Your task to perform on an android device: find snoozed emails in the gmail app Image 0: 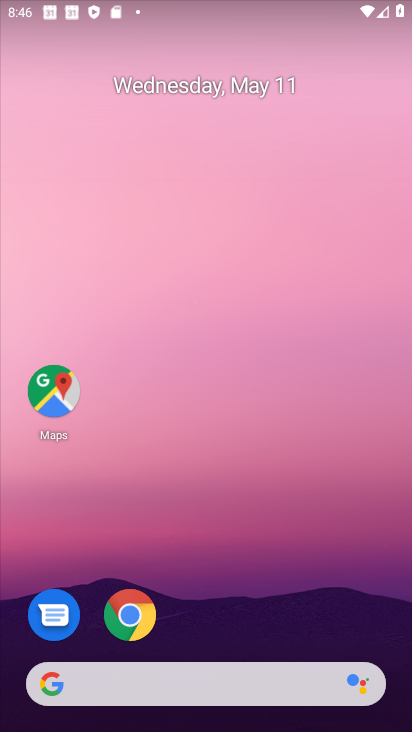
Step 0: press home button
Your task to perform on an android device: find snoozed emails in the gmail app Image 1: 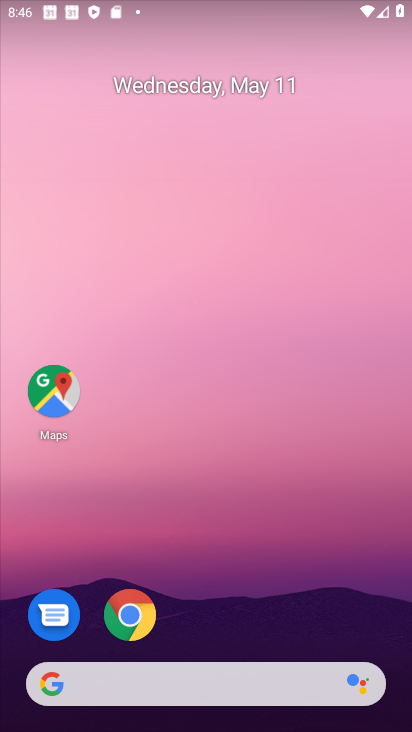
Step 1: drag from (62, 568) to (184, 242)
Your task to perform on an android device: find snoozed emails in the gmail app Image 2: 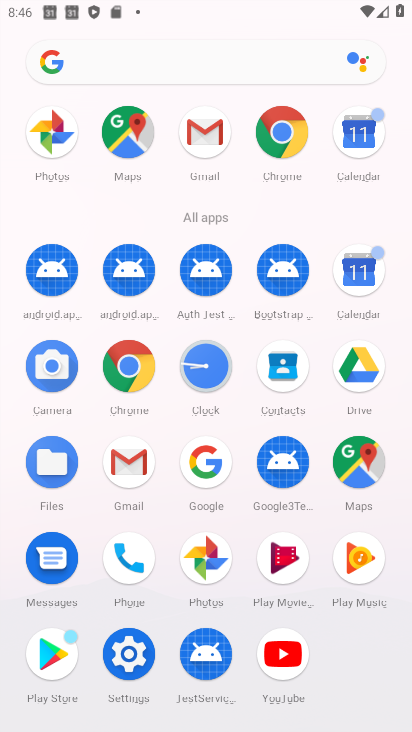
Step 2: click (131, 472)
Your task to perform on an android device: find snoozed emails in the gmail app Image 3: 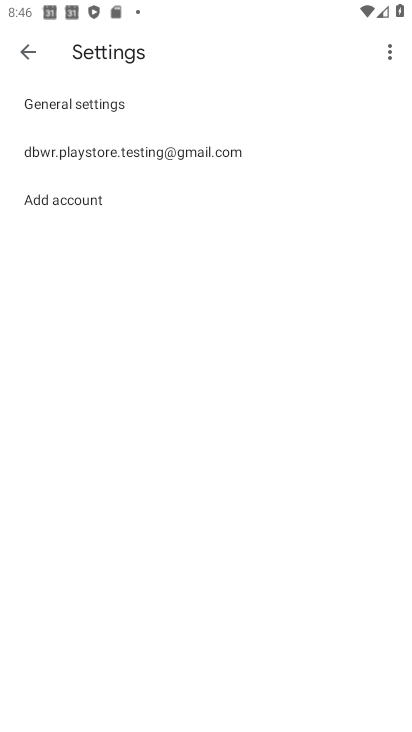
Step 3: click (131, 149)
Your task to perform on an android device: find snoozed emails in the gmail app Image 4: 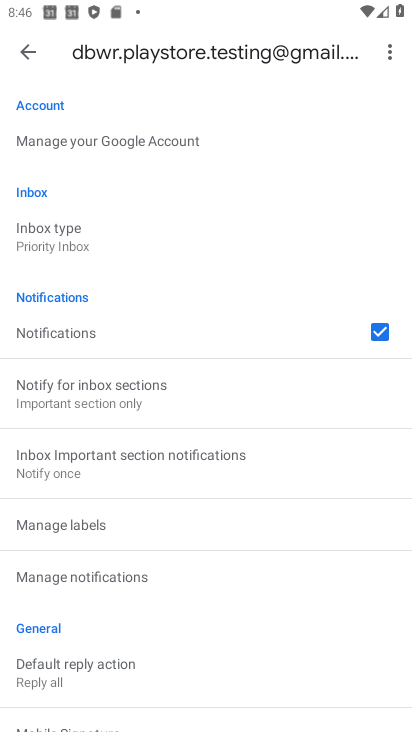
Step 4: press back button
Your task to perform on an android device: find snoozed emails in the gmail app Image 5: 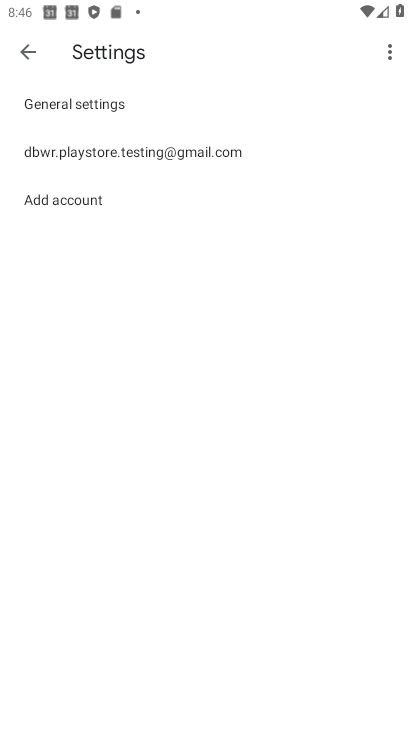
Step 5: press back button
Your task to perform on an android device: find snoozed emails in the gmail app Image 6: 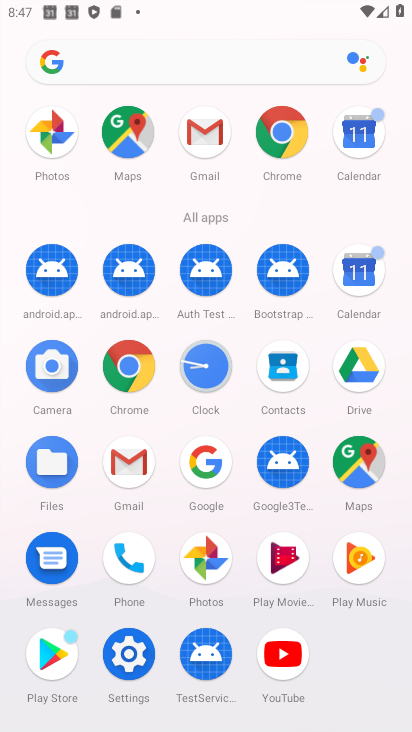
Step 6: click (139, 465)
Your task to perform on an android device: find snoozed emails in the gmail app Image 7: 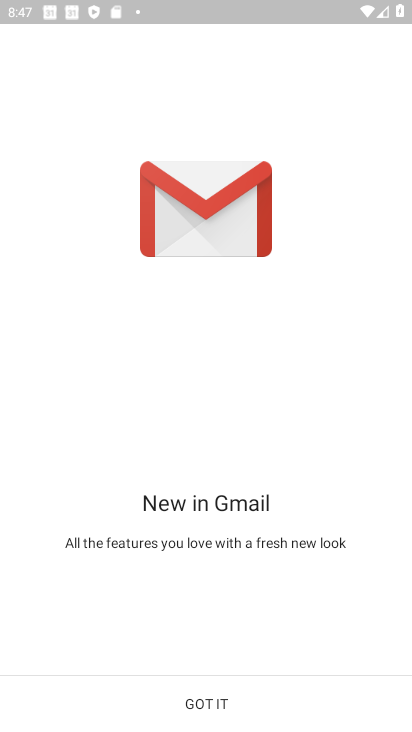
Step 7: click (153, 686)
Your task to perform on an android device: find snoozed emails in the gmail app Image 8: 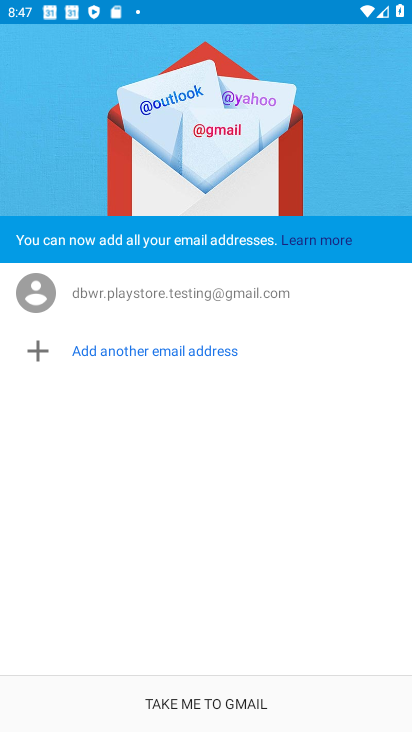
Step 8: click (227, 700)
Your task to perform on an android device: find snoozed emails in the gmail app Image 9: 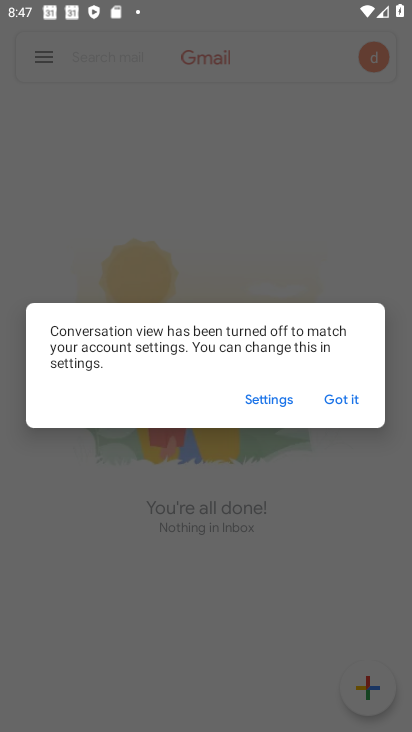
Step 9: click (336, 403)
Your task to perform on an android device: find snoozed emails in the gmail app Image 10: 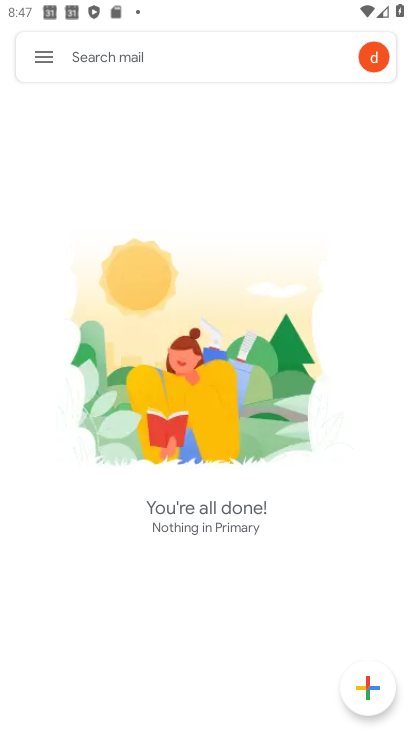
Step 10: click (50, 62)
Your task to perform on an android device: find snoozed emails in the gmail app Image 11: 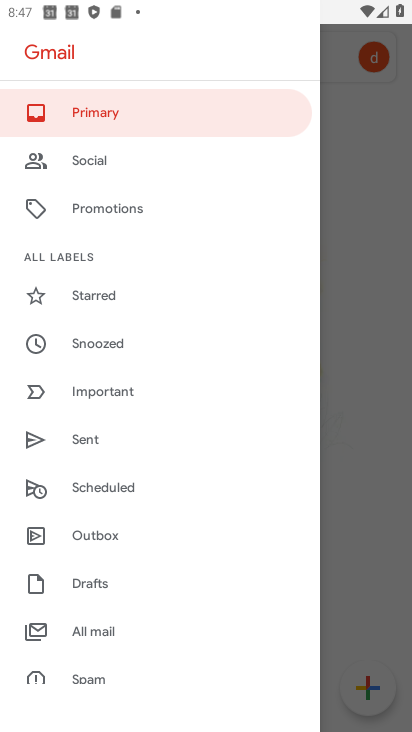
Step 11: click (87, 340)
Your task to perform on an android device: find snoozed emails in the gmail app Image 12: 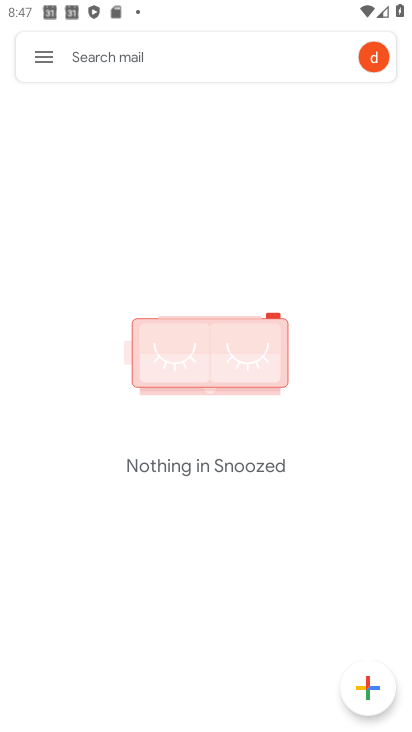
Step 12: task complete